Your task to perform on an android device: open wifi settings Image 0: 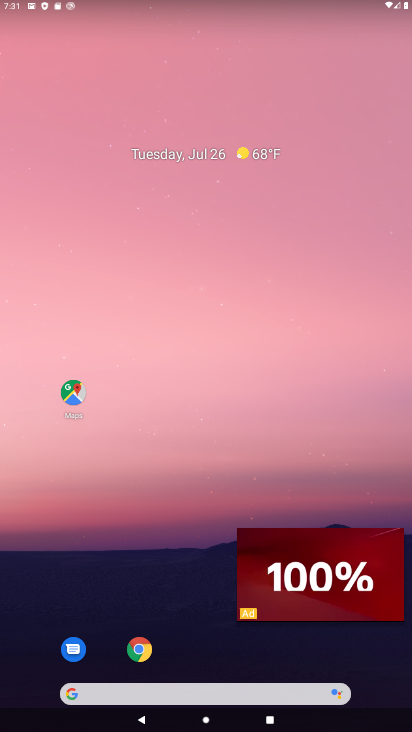
Step 0: click (329, 582)
Your task to perform on an android device: open wifi settings Image 1: 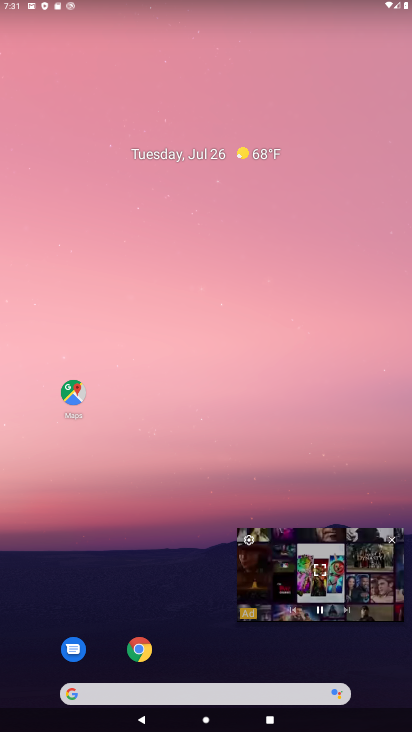
Step 1: click (346, 546)
Your task to perform on an android device: open wifi settings Image 2: 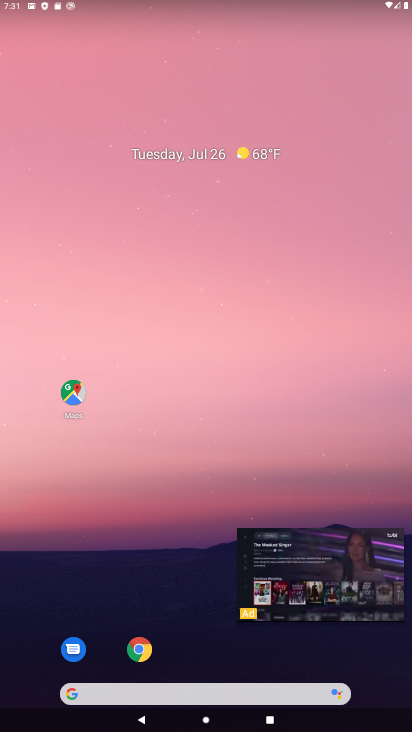
Step 2: click (393, 545)
Your task to perform on an android device: open wifi settings Image 3: 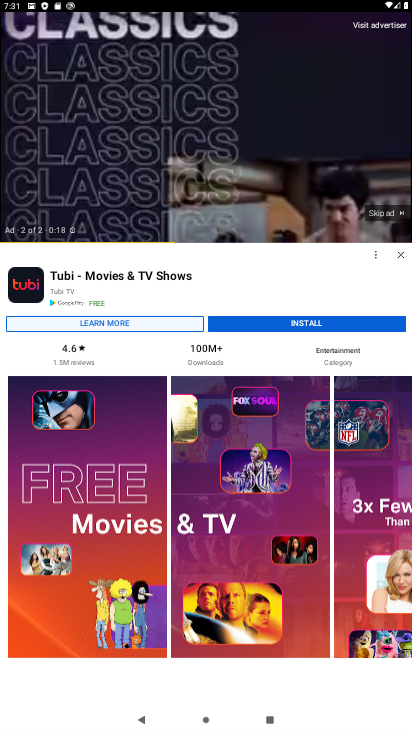
Step 3: press home button
Your task to perform on an android device: open wifi settings Image 4: 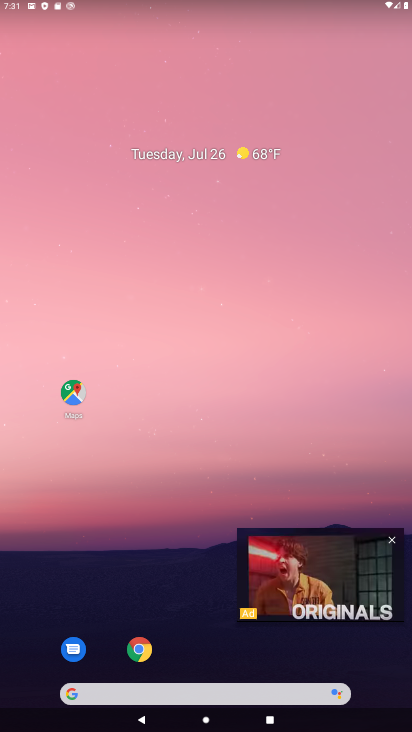
Step 4: click (395, 542)
Your task to perform on an android device: open wifi settings Image 5: 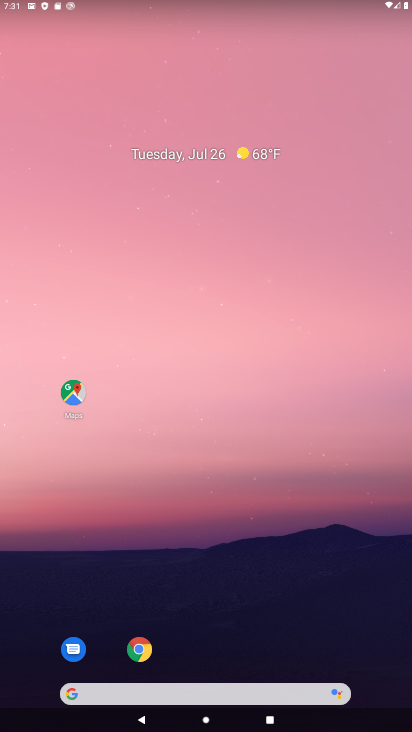
Step 5: drag from (204, 720) to (269, 250)
Your task to perform on an android device: open wifi settings Image 6: 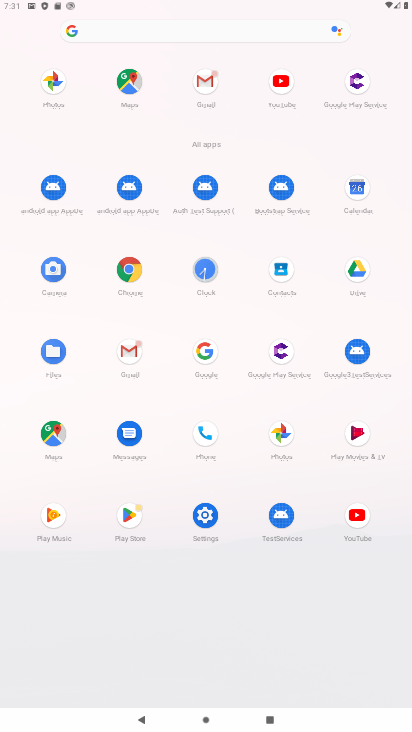
Step 6: click (199, 525)
Your task to perform on an android device: open wifi settings Image 7: 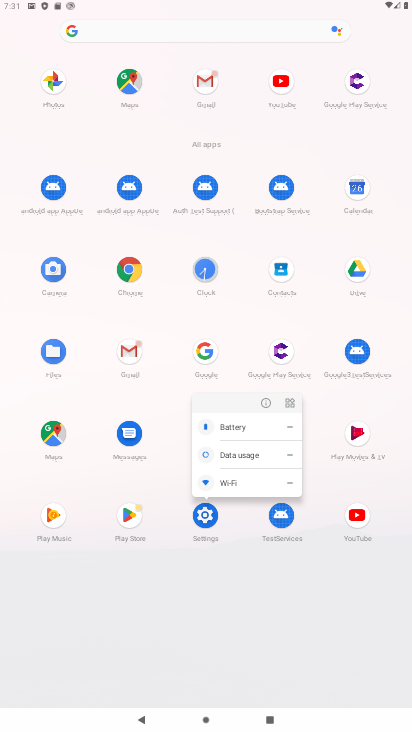
Step 7: click (199, 525)
Your task to perform on an android device: open wifi settings Image 8: 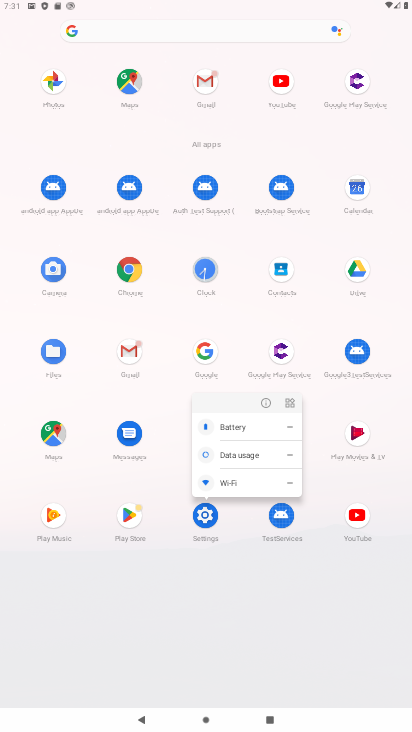
Step 8: click (199, 525)
Your task to perform on an android device: open wifi settings Image 9: 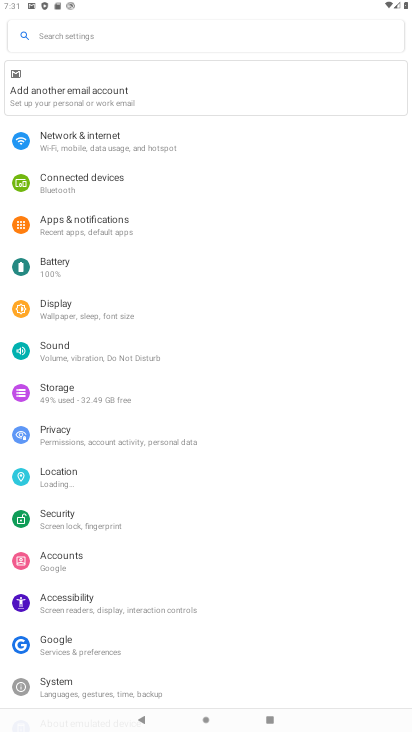
Step 9: click (168, 141)
Your task to perform on an android device: open wifi settings Image 10: 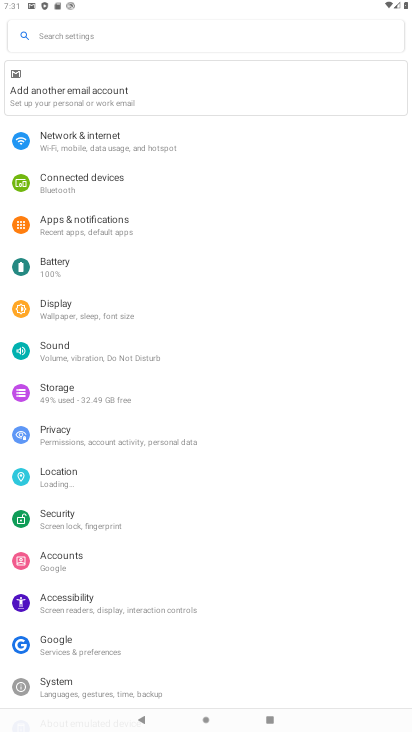
Step 10: click (168, 141)
Your task to perform on an android device: open wifi settings Image 11: 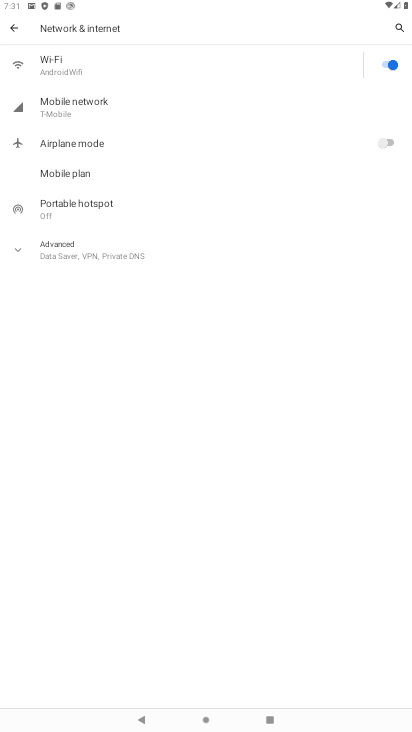
Step 11: click (65, 55)
Your task to perform on an android device: open wifi settings Image 12: 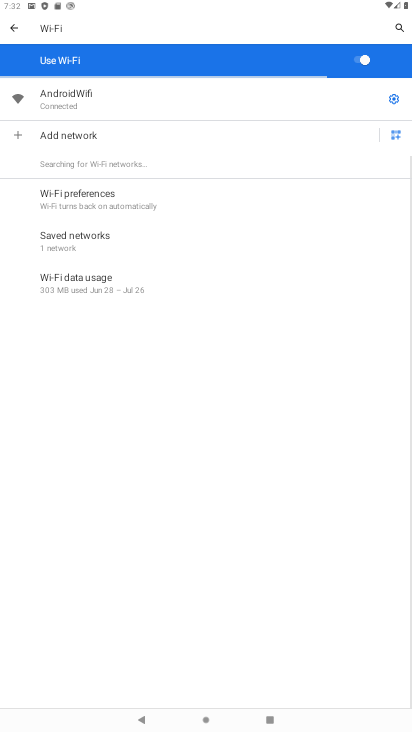
Step 12: click (392, 102)
Your task to perform on an android device: open wifi settings Image 13: 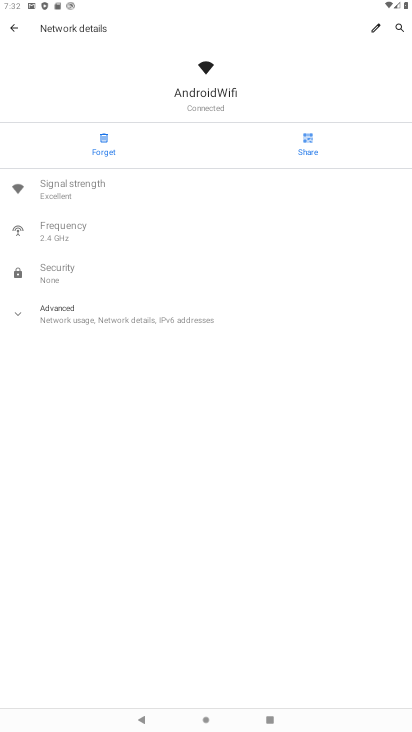
Step 13: task complete